Your task to perform on an android device: Open calendar and show me the first week of next month Image 0: 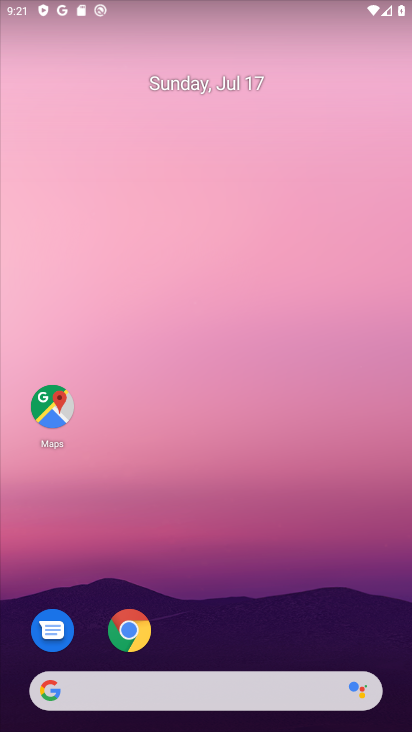
Step 0: press home button
Your task to perform on an android device: Open calendar and show me the first week of next month Image 1: 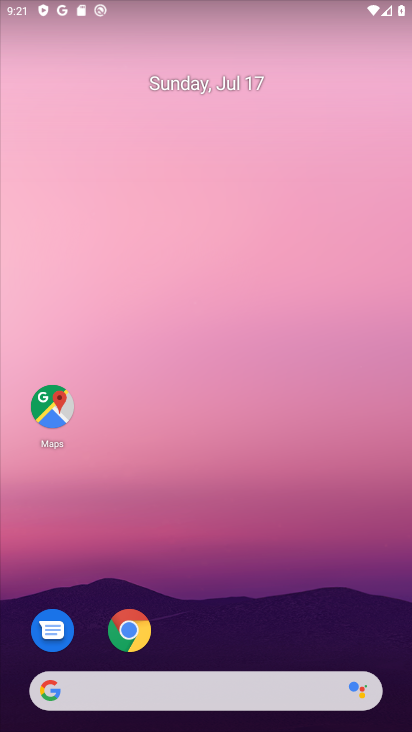
Step 1: drag from (205, 647) to (195, 45)
Your task to perform on an android device: Open calendar and show me the first week of next month Image 2: 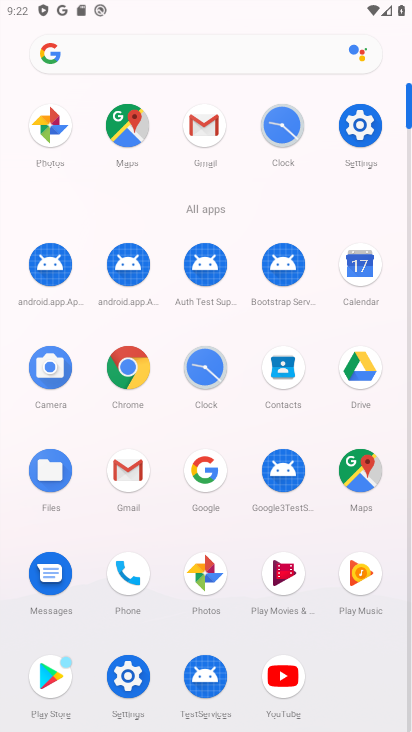
Step 2: click (358, 262)
Your task to perform on an android device: Open calendar and show me the first week of next month Image 3: 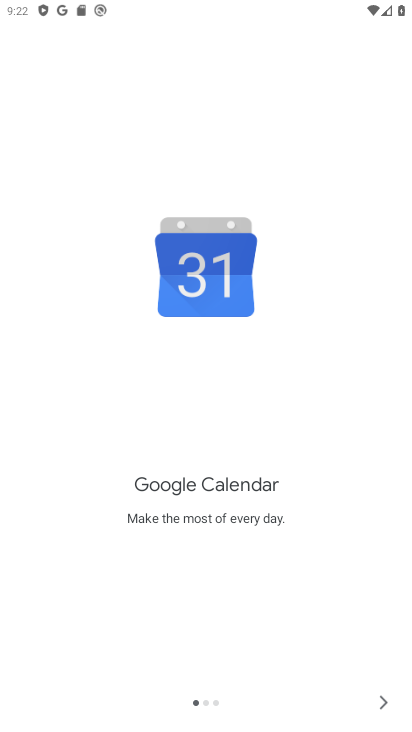
Step 3: click (383, 703)
Your task to perform on an android device: Open calendar and show me the first week of next month Image 4: 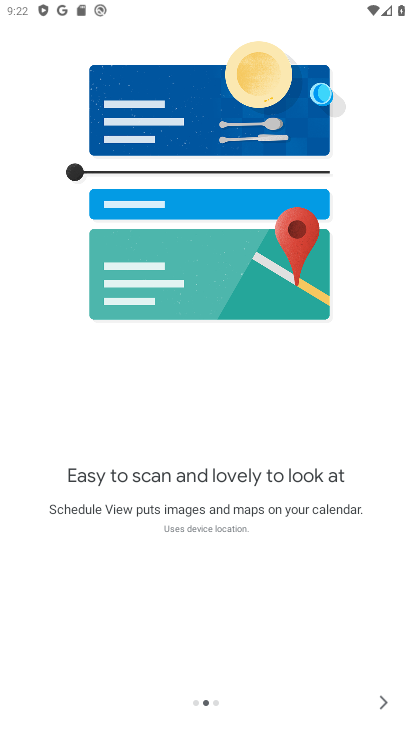
Step 4: click (381, 702)
Your task to perform on an android device: Open calendar and show me the first week of next month Image 5: 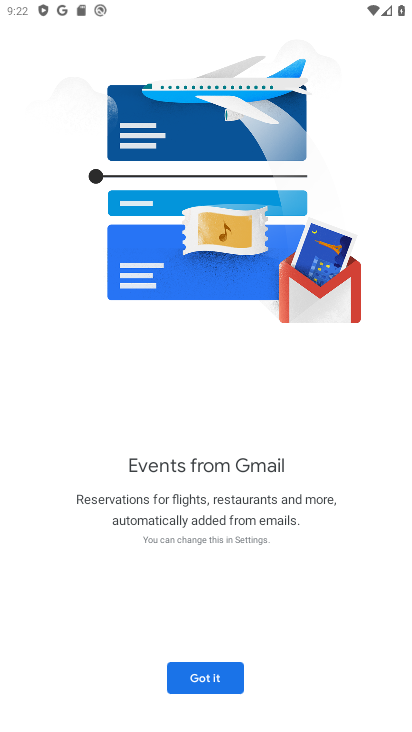
Step 5: click (204, 674)
Your task to perform on an android device: Open calendar and show me the first week of next month Image 6: 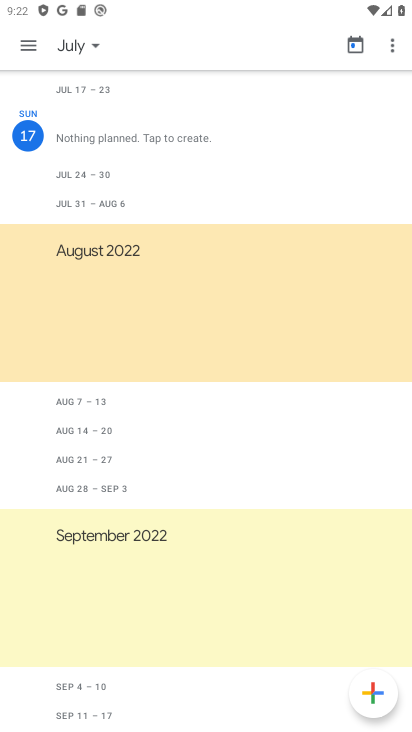
Step 6: click (84, 40)
Your task to perform on an android device: Open calendar and show me the first week of next month Image 7: 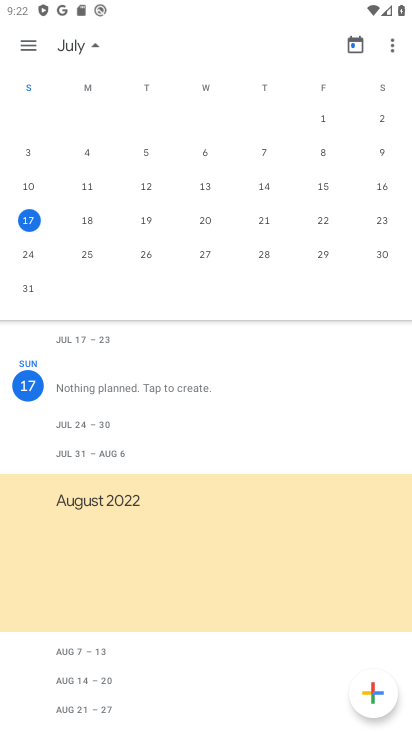
Step 7: drag from (374, 221) to (27, 213)
Your task to perform on an android device: Open calendar and show me the first week of next month Image 8: 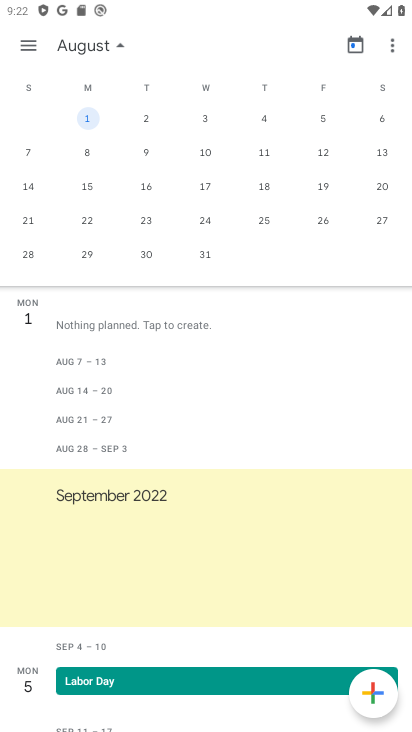
Step 8: click (85, 116)
Your task to perform on an android device: Open calendar and show me the first week of next month Image 9: 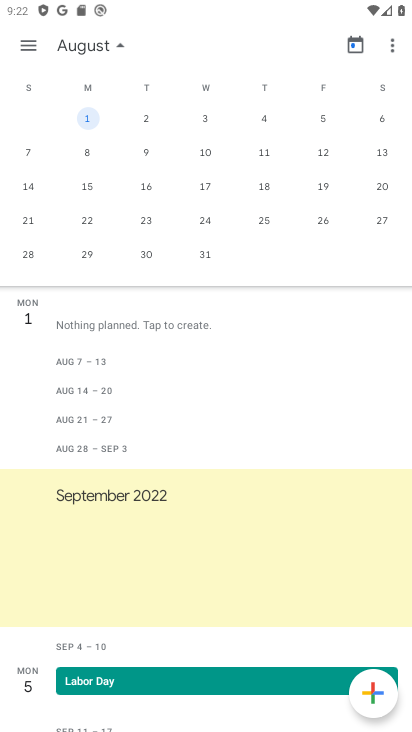
Step 9: click (28, 51)
Your task to perform on an android device: Open calendar and show me the first week of next month Image 10: 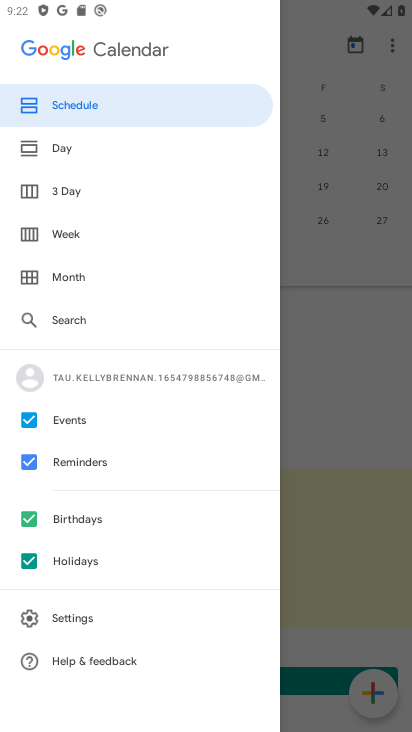
Step 10: click (69, 226)
Your task to perform on an android device: Open calendar and show me the first week of next month Image 11: 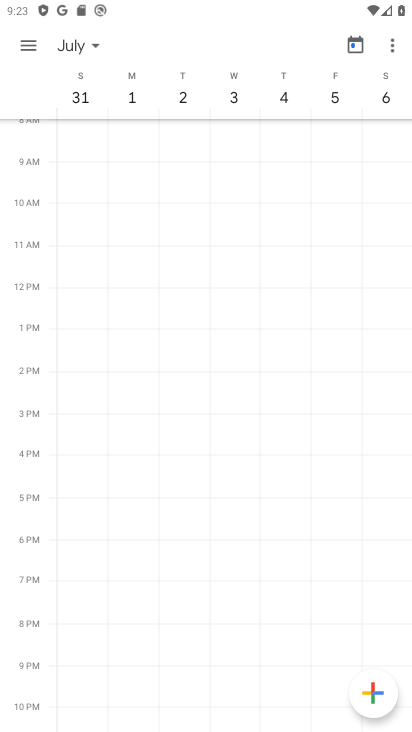
Step 11: task complete